Your task to perform on an android device: Go to Amazon Image 0: 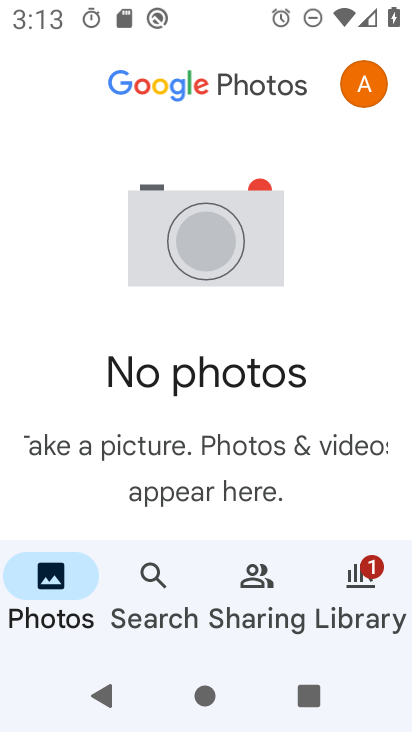
Step 0: press home button
Your task to perform on an android device: Go to Amazon Image 1: 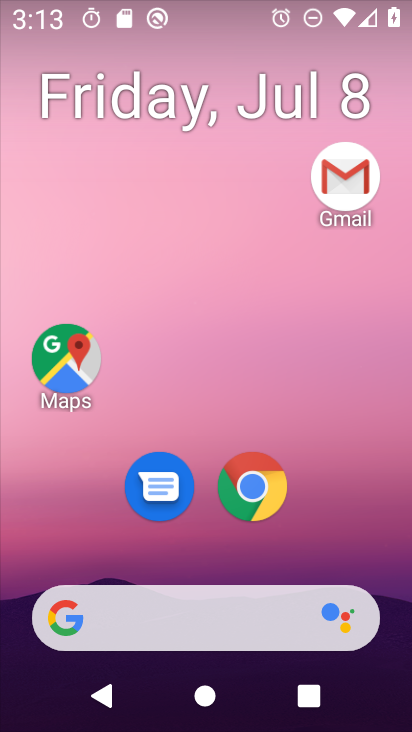
Step 1: drag from (351, 518) to (330, 187)
Your task to perform on an android device: Go to Amazon Image 2: 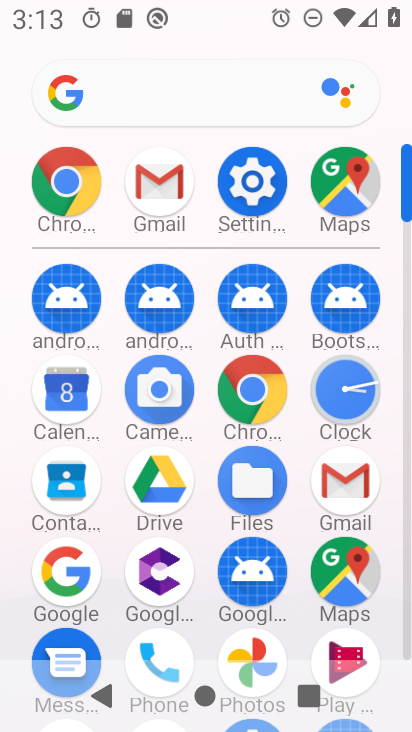
Step 2: click (263, 392)
Your task to perform on an android device: Go to Amazon Image 3: 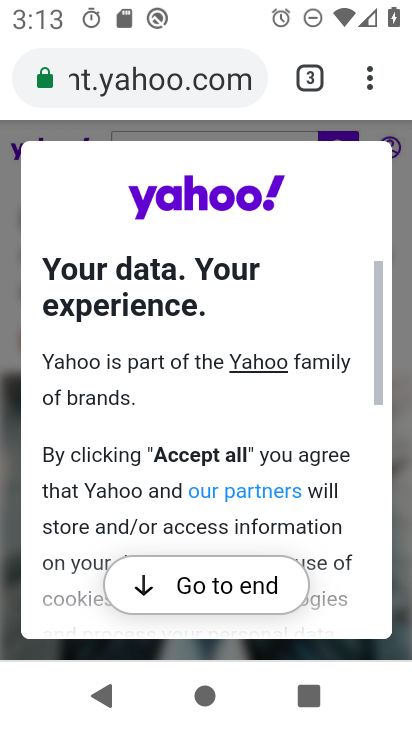
Step 3: click (223, 90)
Your task to perform on an android device: Go to Amazon Image 4: 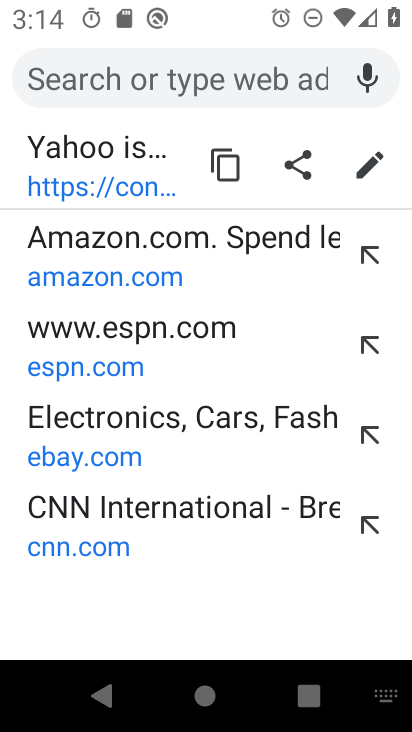
Step 4: type "amazon"
Your task to perform on an android device: Go to Amazon Image 5: 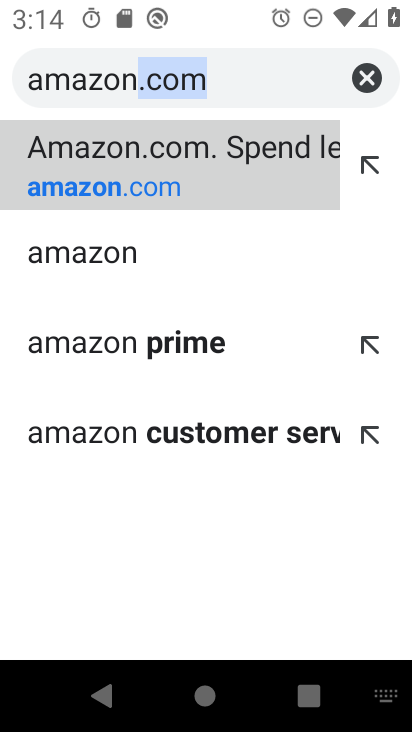
Step 5: click (197, 172)
Your task to perform on an android device: Go to Amazon Image 6: 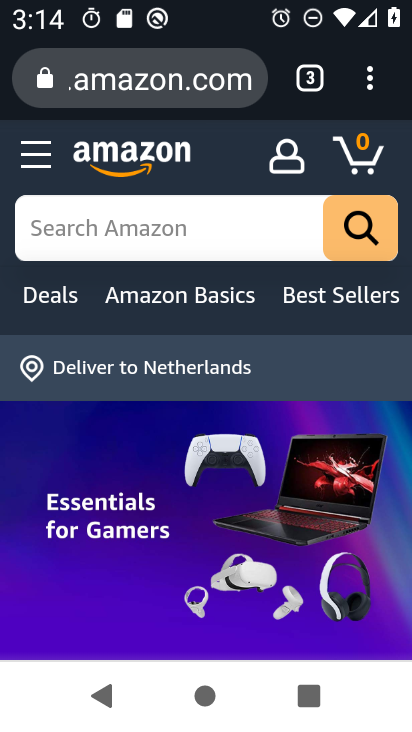
Step 6: task complete